Your task to perform on an android device: turn on location history Image 0: 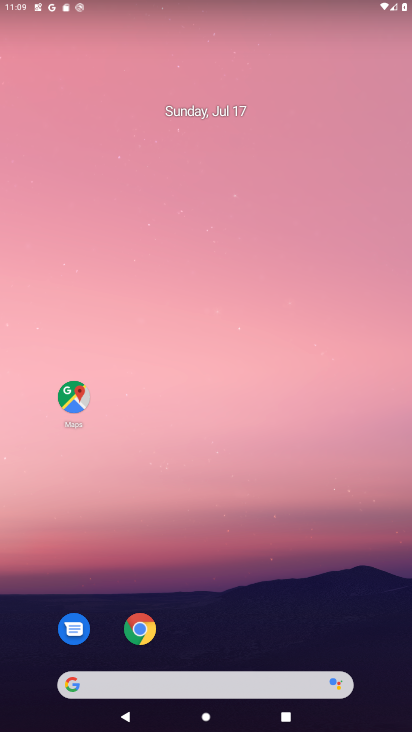
Step 0: press home button
Your task to perform on an android device: turn on location history Image 1: 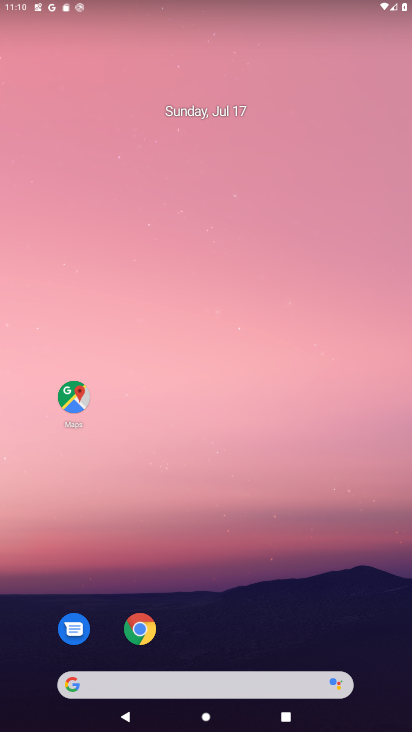
Step 1: drag from (195, 686) to (259, 270)
Your task to perform on an android device: turn on location history Image 2: 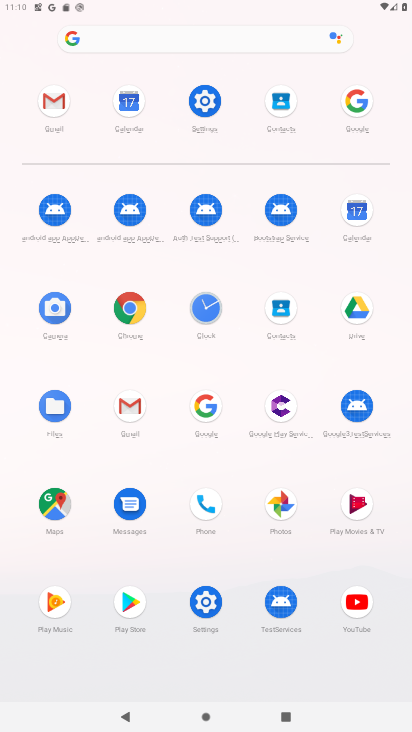
Step 2: click (205, 102)
Your task to perform on an android device: turn on location history Image 3: 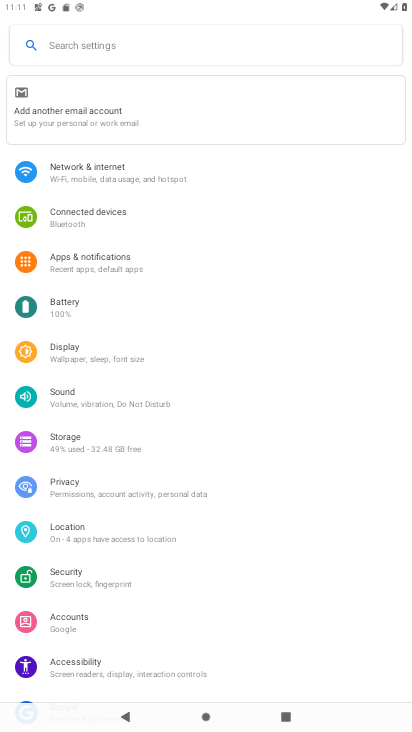
Step 3: click (73, 527)
Your task to perform on an android device: turn on location history Image 4: 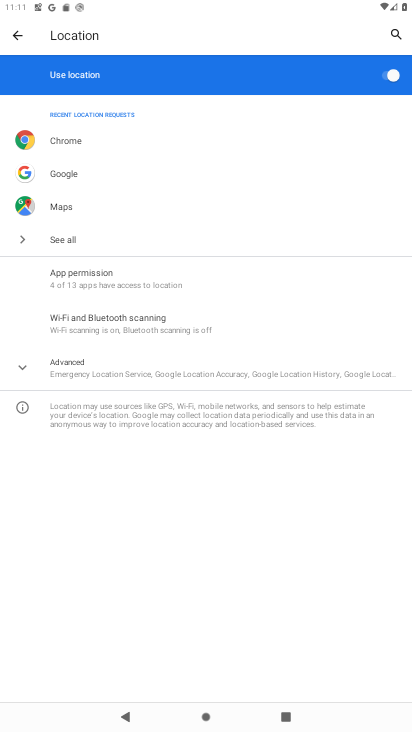
Step 4: click (128, 377)
Your task to perform on an android device: turn on location history Image 5: 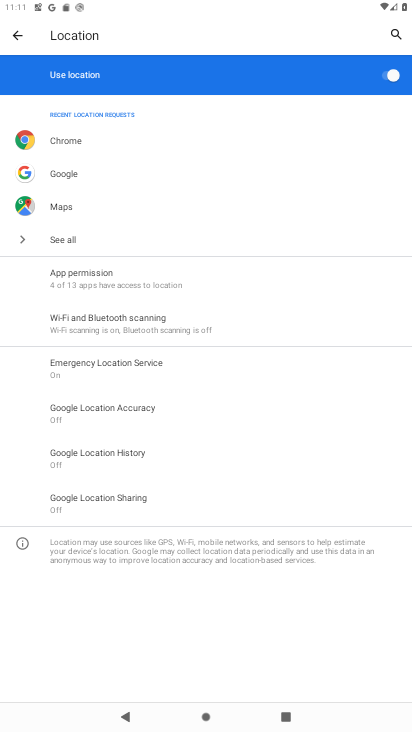
Step 5: click (134, 455)
Your task to perform on an android device: turn on location history Image 6: 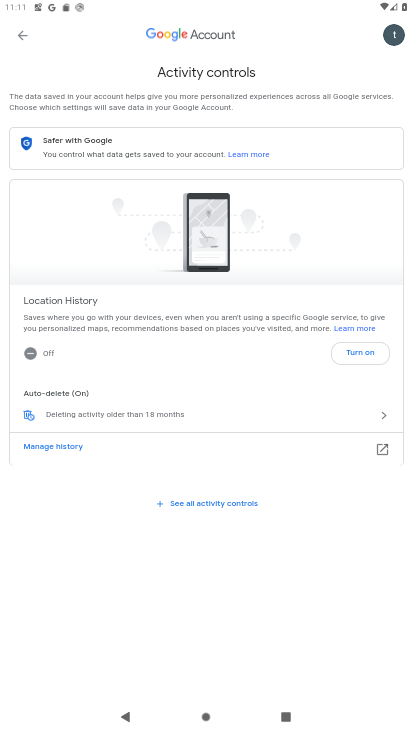
Step 6: click (364, 353)
Your task to perform on an android device: turn on location history Image 7: 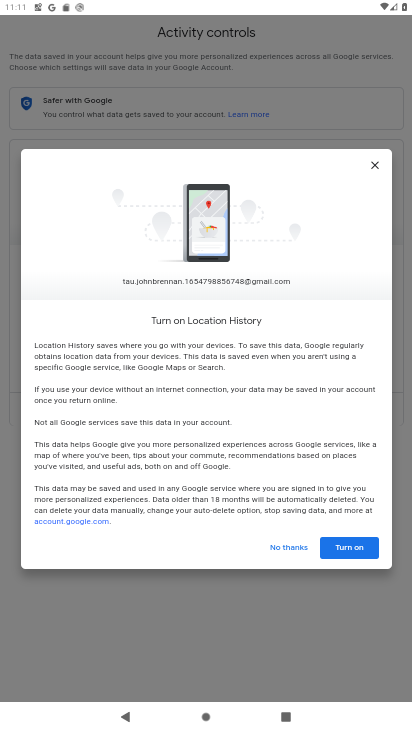
Step 7: click (364, 556)
Your task to perform on an android device: turn on location history Image 8: 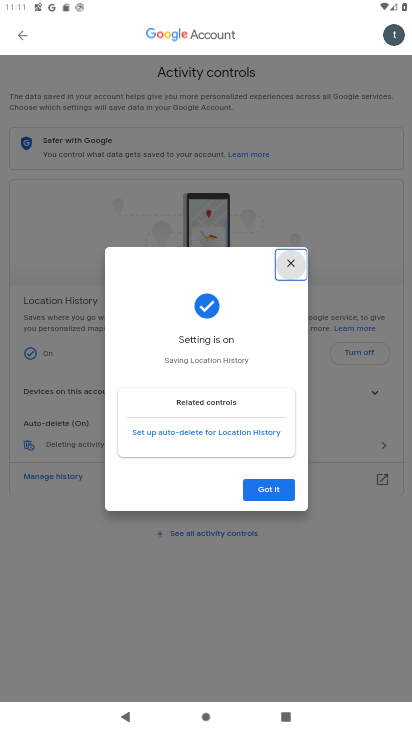
Step 8: click (281, 487)
Your task to perform on an android device: turn on location history Image 9: 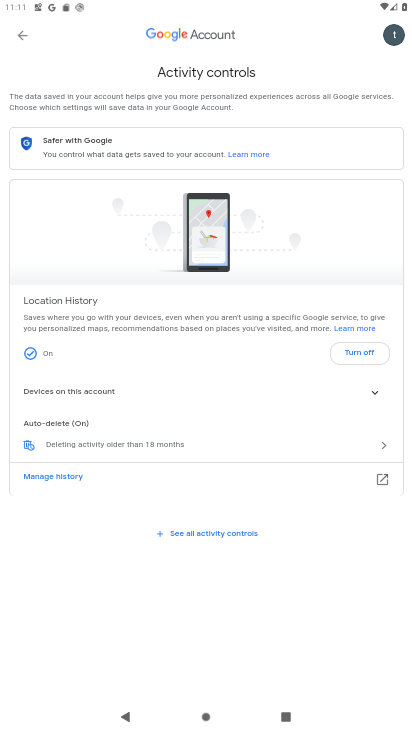
Step 9: task complete